Your task to perform on an android device: Open Wikipedia Image 0: 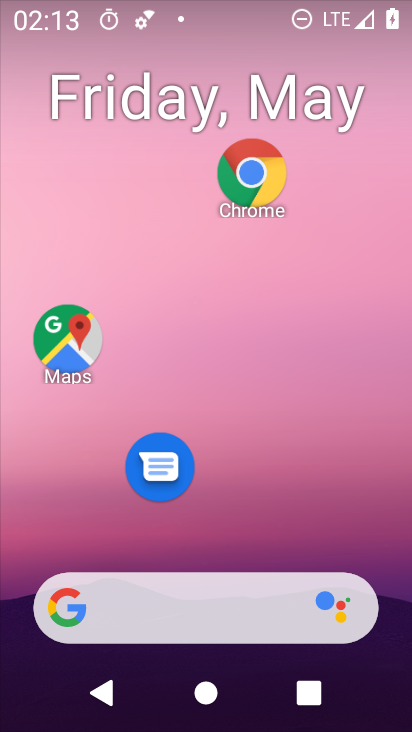
Step 0: drag from (169, 656) to (249, 223)
Your task to perform on an android device: Open Wikipedia Image 1: 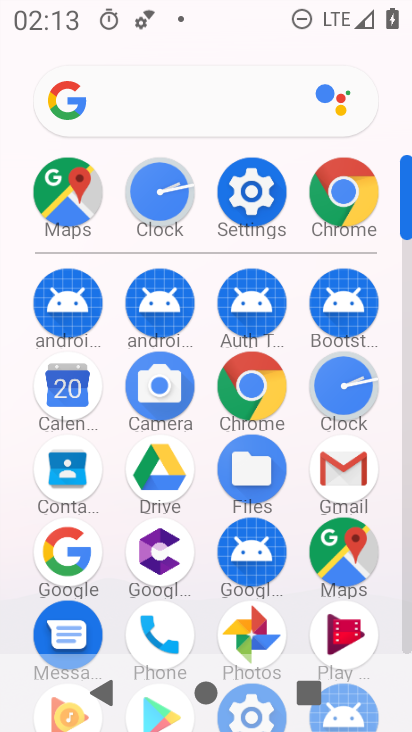
Step 1: click (325, 215)
Your task to perform on an android device: Open Wikipedia Image 2: 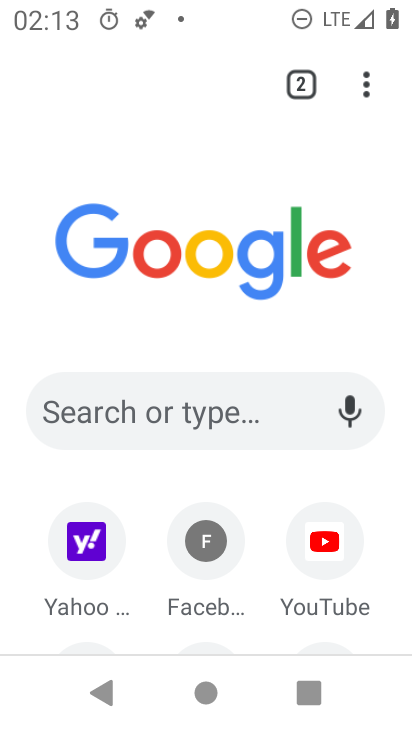
Step 2: drag from (154, 524) to (177, 334)
Your task to perform on an android device: Open Wikipedia Image 3: 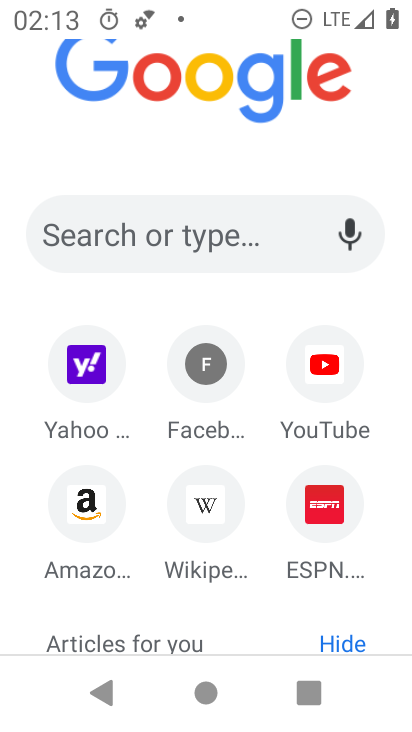
Step 3: click (203, 501)
Your task to perform on an android device: Open Wikipedia Image 4: 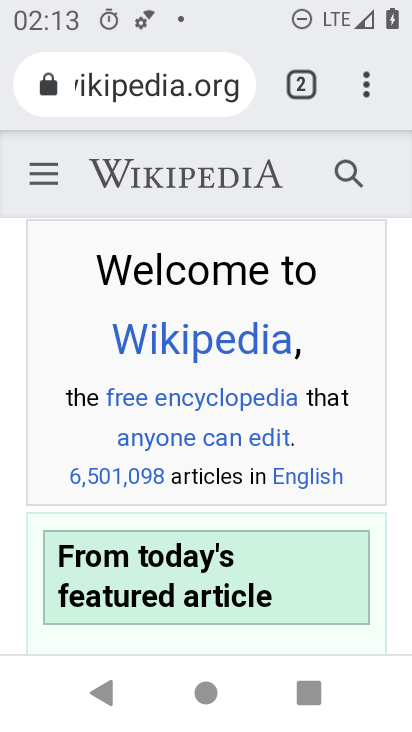
Step 4: task complete